Your task to perform on an android device: install app "Contacts" Image 0: 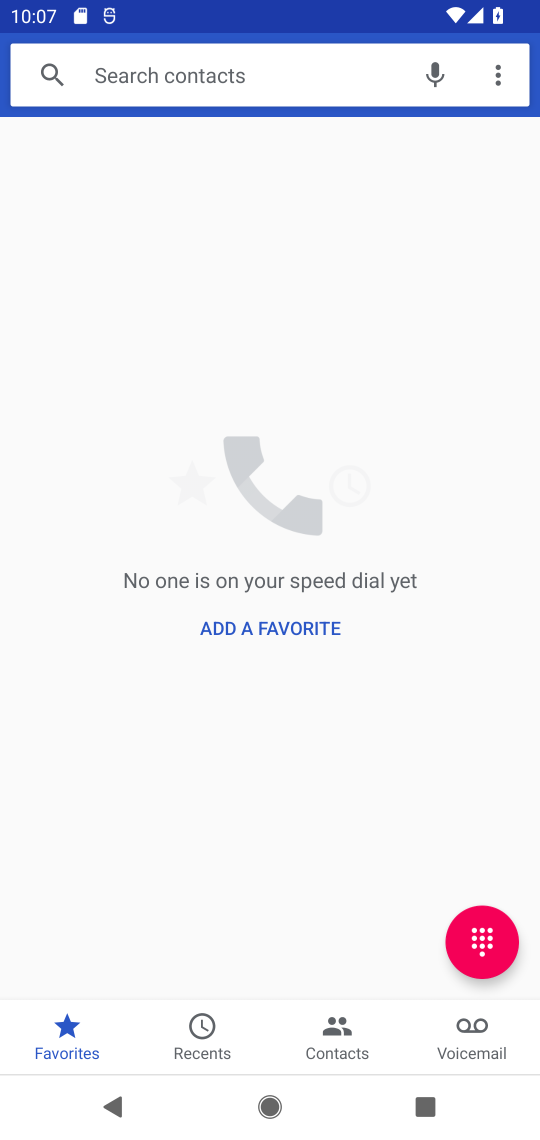
Step 0: press home button
Your task to perform on an android device: install app "Contacts" Image 1: 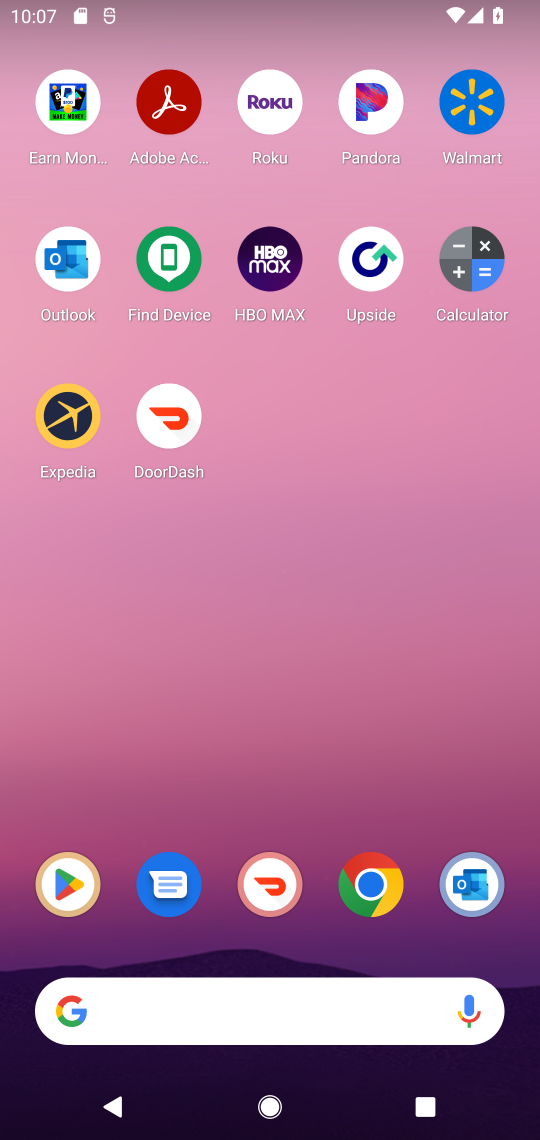
Step 1: click (69, 899)
Your task to perform on an android device: install app "Contacts" Image 2: 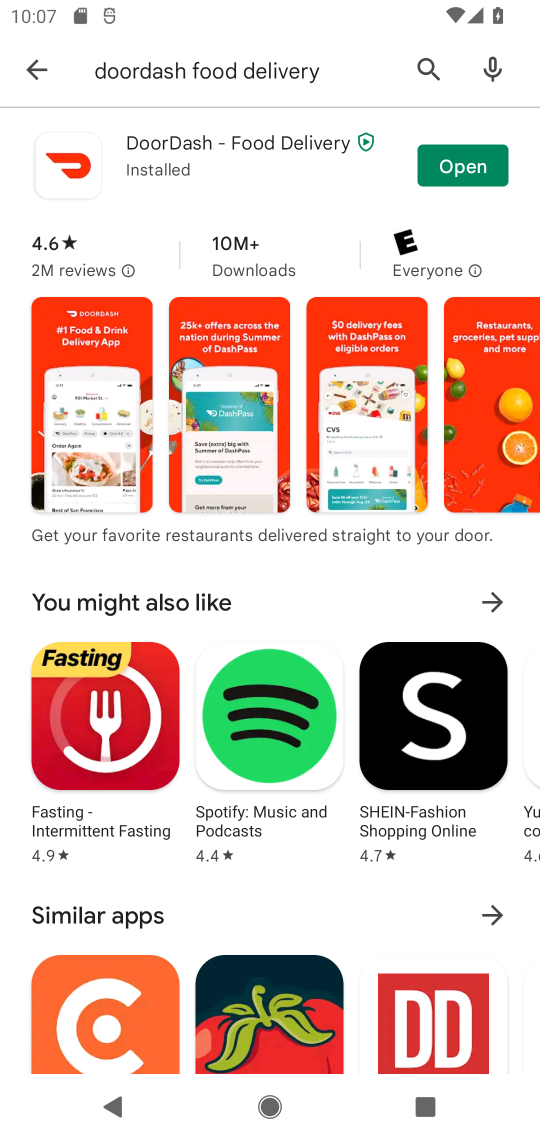
Step 2: click (217, 77)
Your task to perform on an android device: install app "Contacts" Image 3: 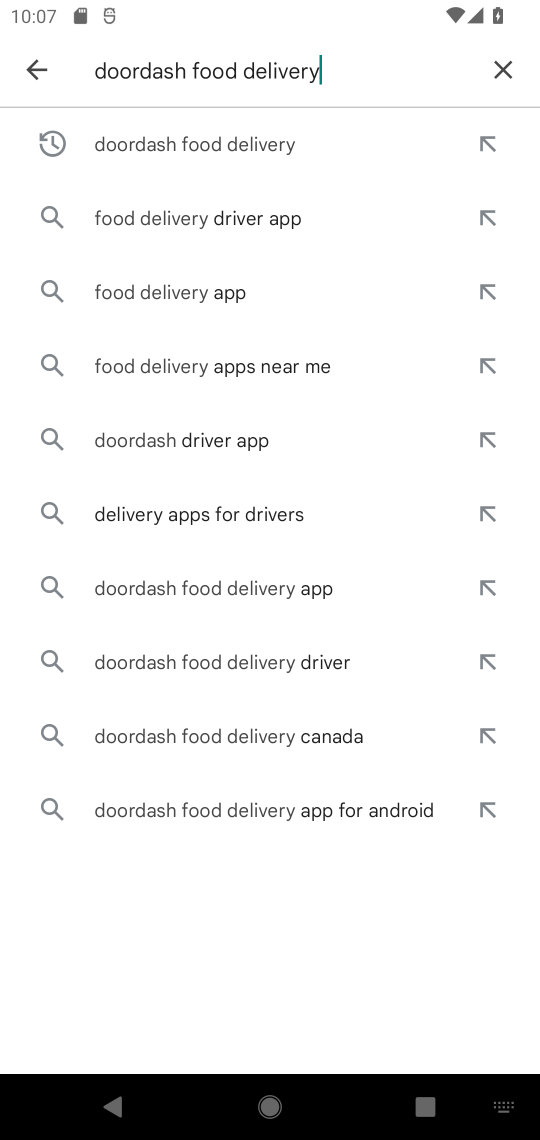
Step 3: click (495, 63)
Your task to perform on an android device: install app "Contacts" Image 4: 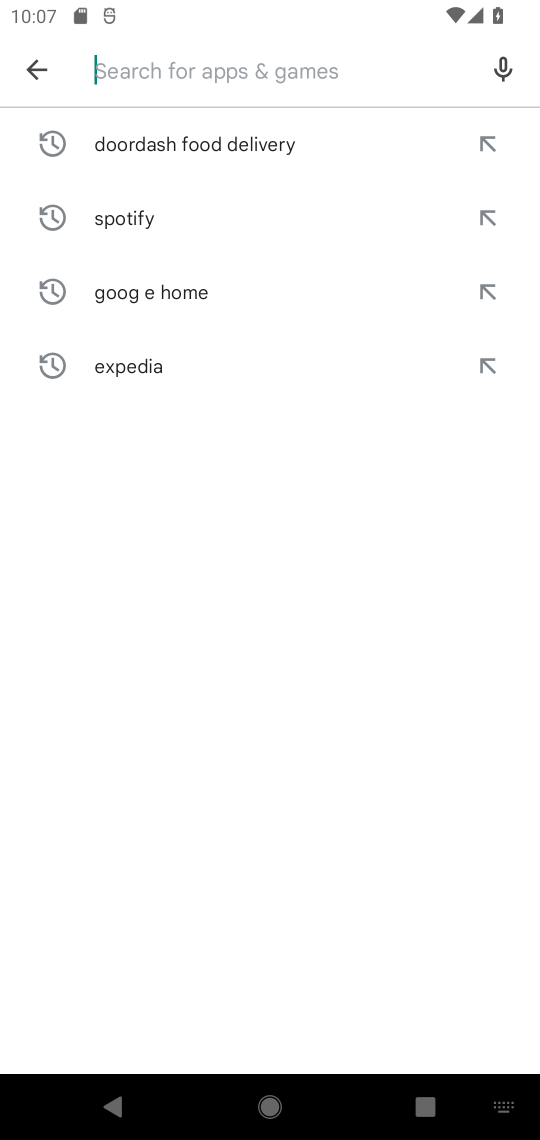
Step 4: type "contacts"
Your task to perform on an android device: install app "Contacts" Image 5: 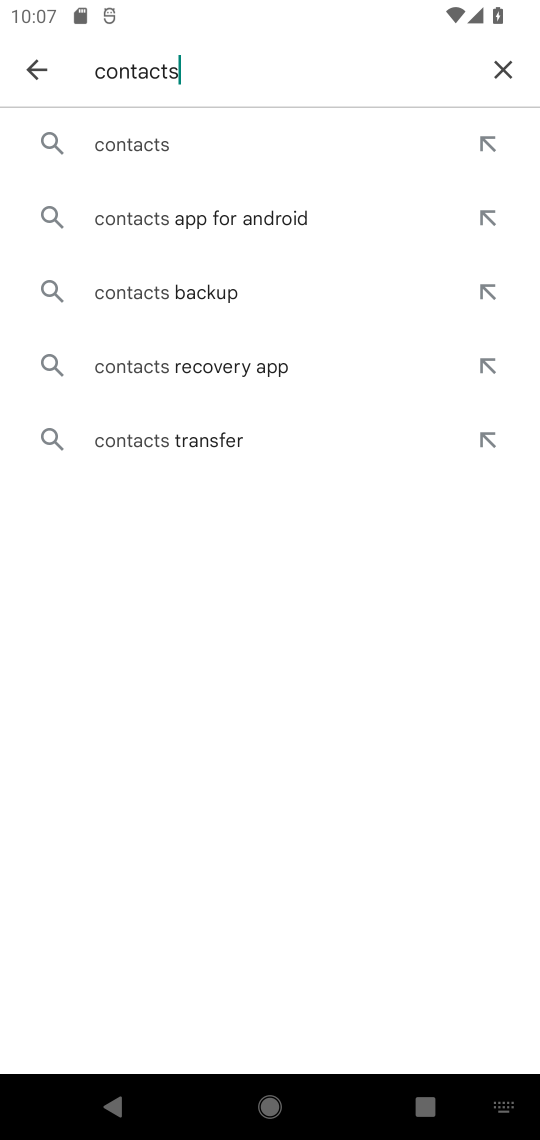
Step 5: click (143, 155)
Your task to perform on an android device: install app "Contacts" Image 6: 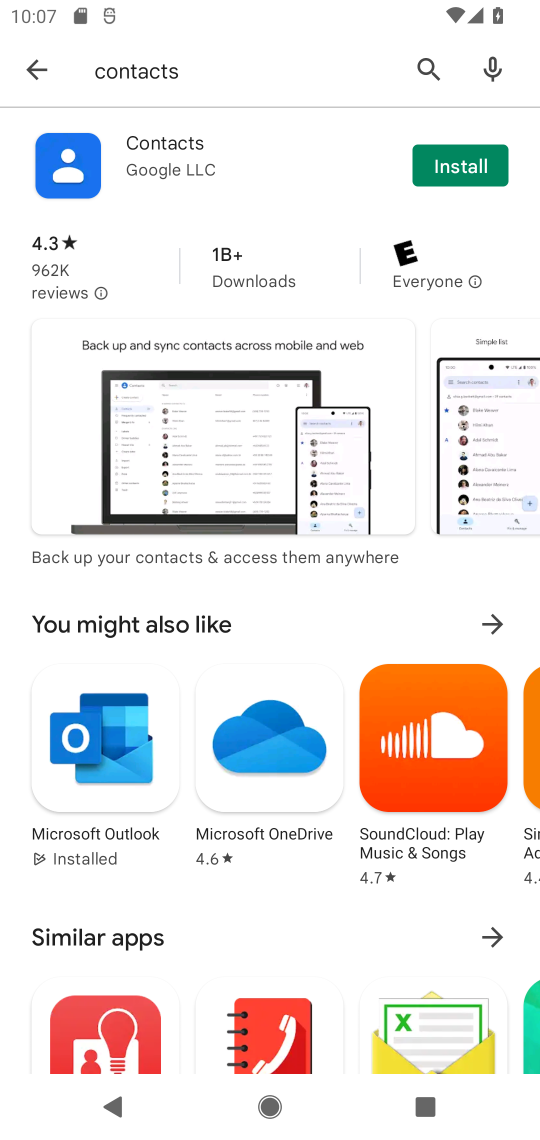
Step 6: click (464, 160)
Your task to perform on an android device: install app "Contacts" Image 7: 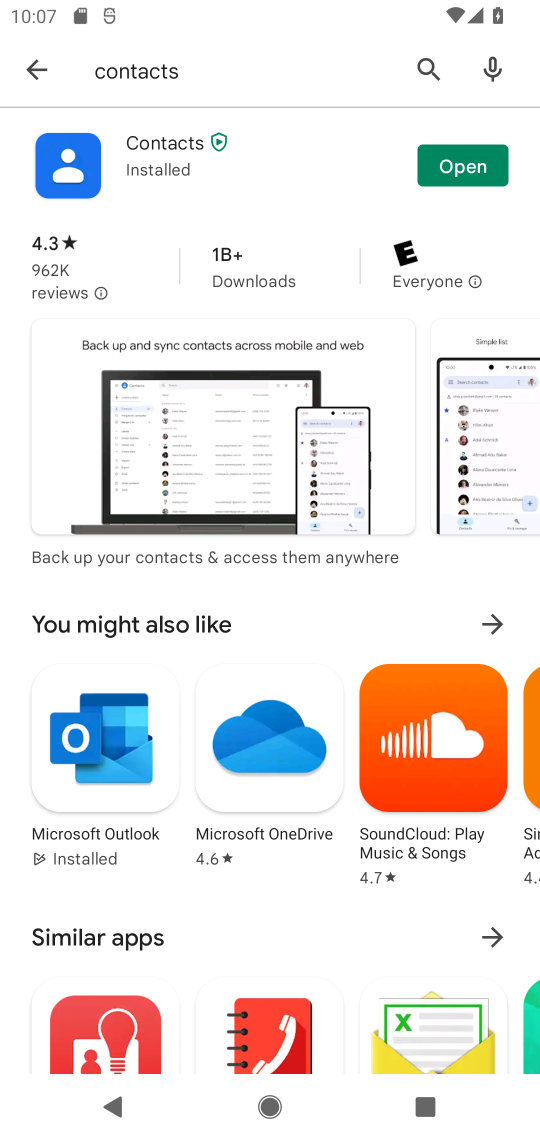
Step 7: task complete